Your task to perform on an android device: Open internet settings Image 0: 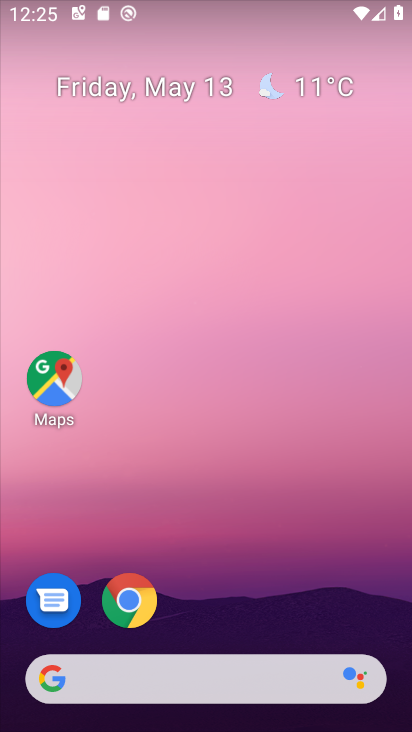
Step 0: drag from (195, 560) to (270, 67)
Your task to perform on an android device: Open internet settings Image 1: 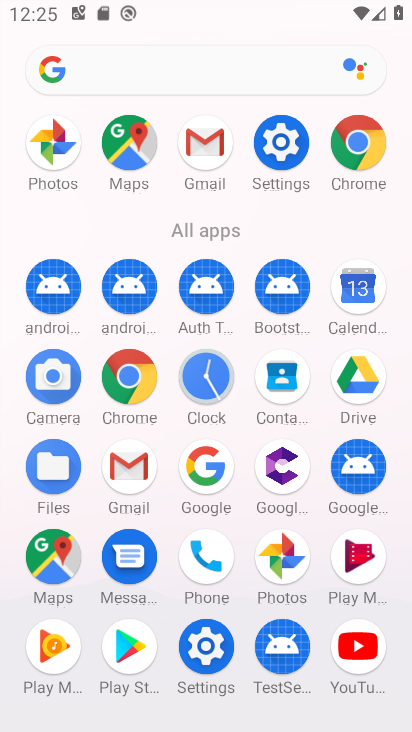
Step 1: click (271, 144)
Your task to perform on an android device: Open internet settings Image 2: 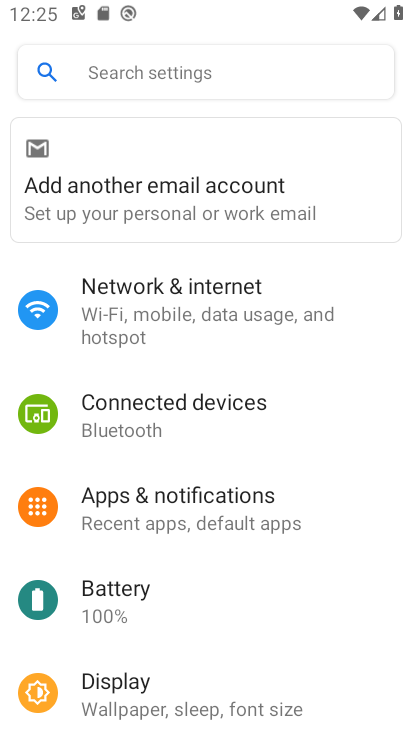
Step 2: click (182, 293)
Your task to perform on an android device: Open internet settings Image 3: 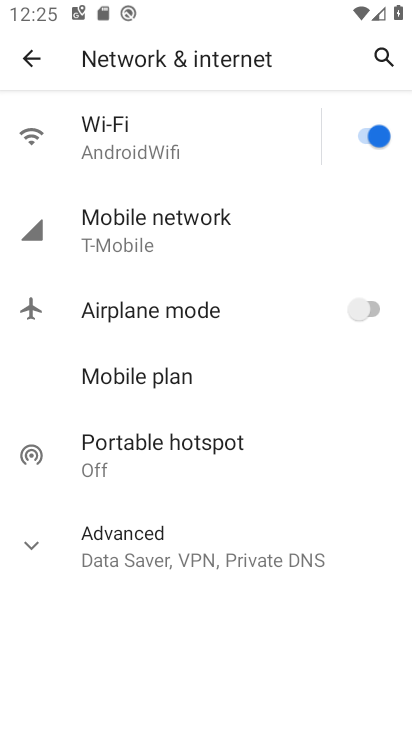
Step 3: click (213, 255)
Your task to perform on an android device: Open internet settings Image 4: 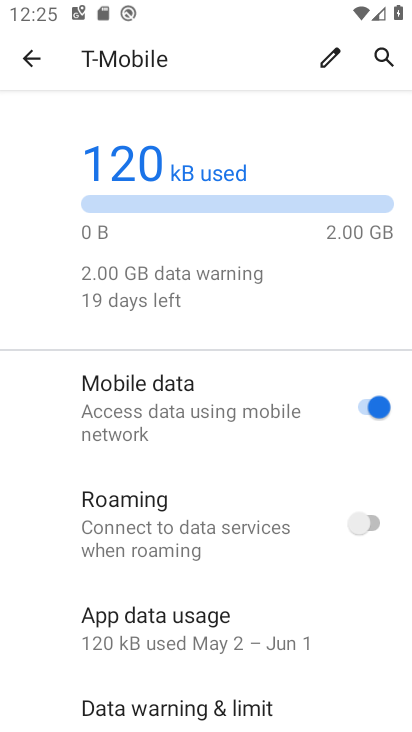
Step 4: task complete